Your task to perform on an android device: Open sound settings Image 0: 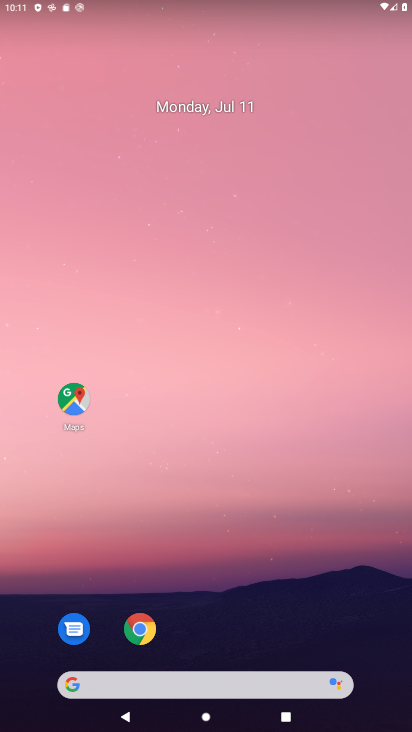
Step 0: drag from (322, 614) to (350, 58)
Your task to perform on an android device: Open sound settings Image 1: 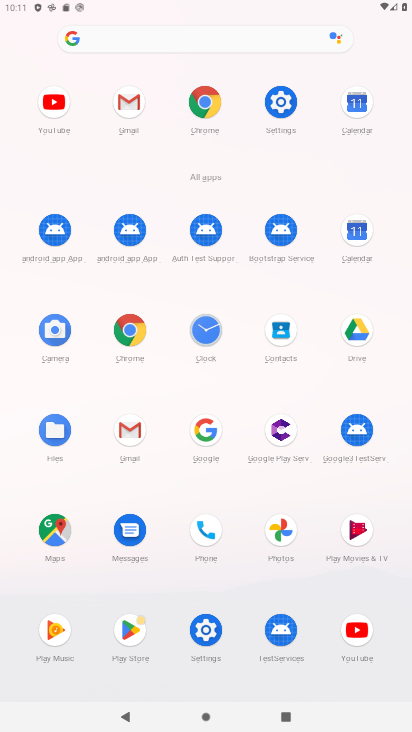
Step 1: click (278, 127)
Your task to perform on an android device: Open sound settings Image 2: 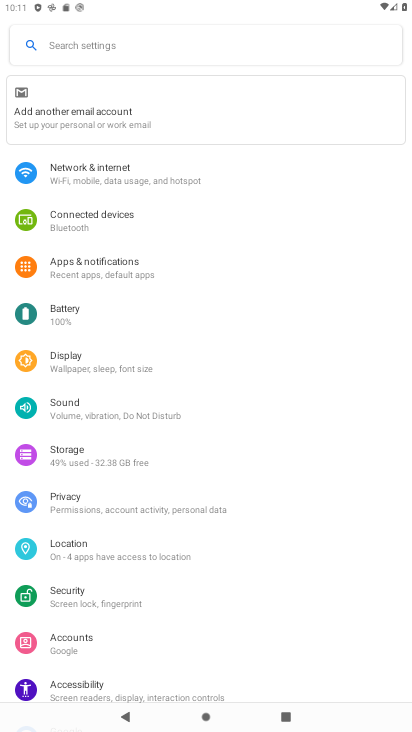
Step 2: click (154, 410)
Your task to perform on an android device: Open sound settings Image 3: 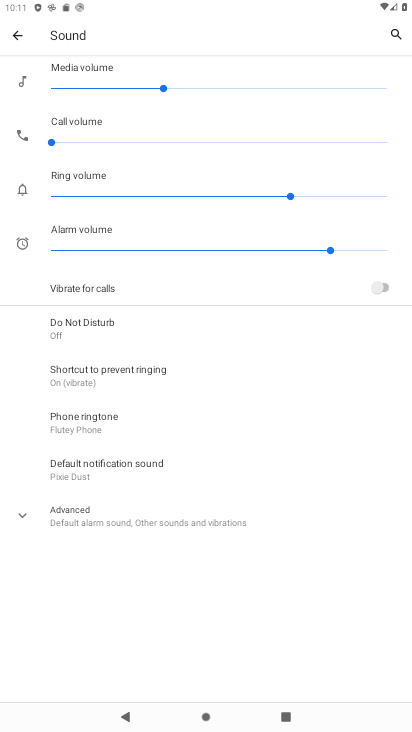
Step 3: task complete